Your task to perform on an android device: visit the assistant section in the google photos Image 0: 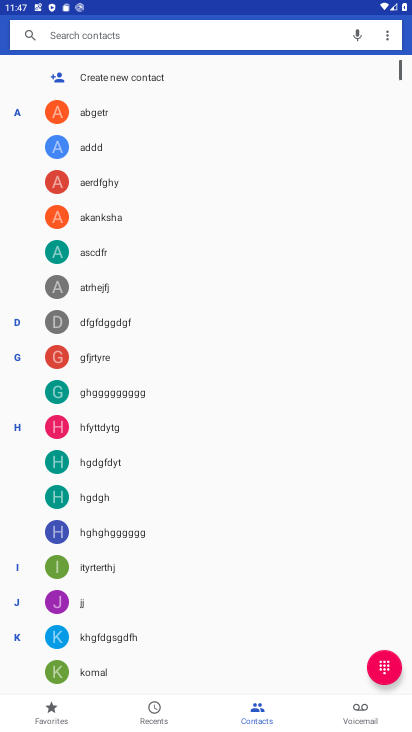
Step 0: press home button
Your task to perform on an android device: visit the assistant section in the google photos Image 1: 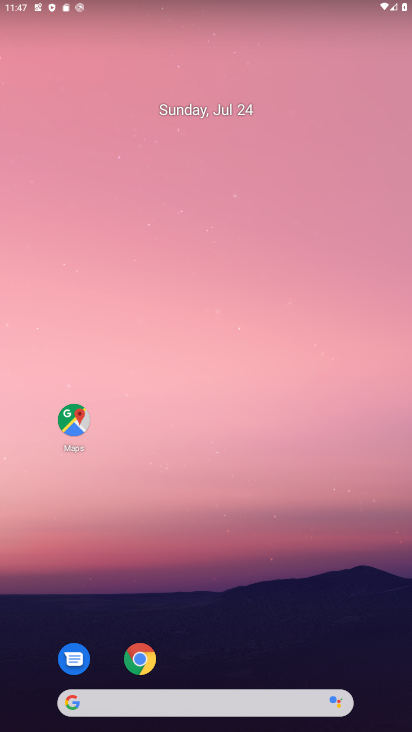
Step 1: drag from (237, 340) to (350, 104)
Your task to perform on an android device: visit the assistant section in the google photos Image 2: 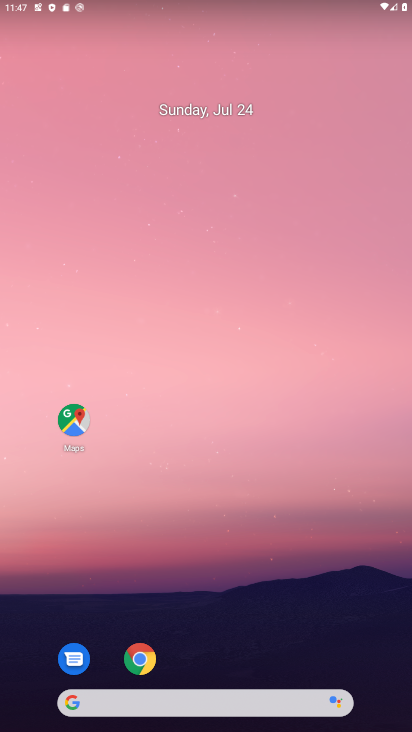
Step 2: drag from (15, 708) to (214, 151)
Your task to perform on an android device: visit the assistant section in the google photos Image 3: 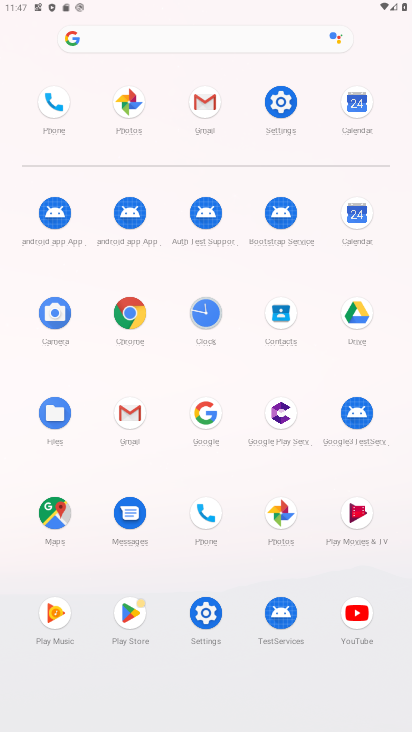
Step 3: click (305, 508)
Your task to perform on an android device: visit the assistant section in the google photos Image 4: 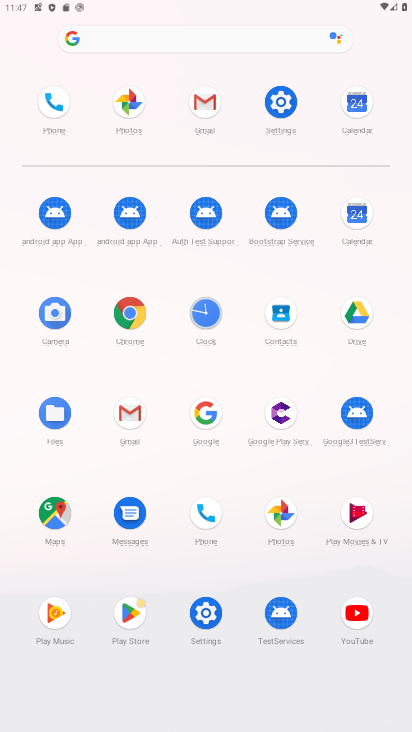
Step 4: click (276, 516)
Your task to perform on an android device: visit the assistant section in the google photos Image 5: 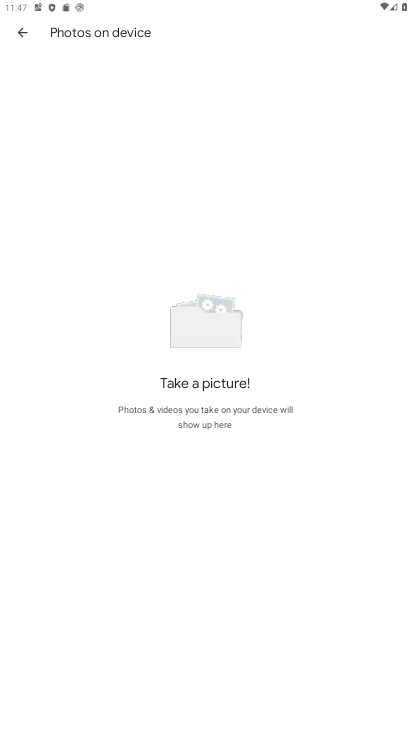
Step 5: click (18, 26)
Your task to perform on an android device: visit the assistant section in the google photos Image 6: 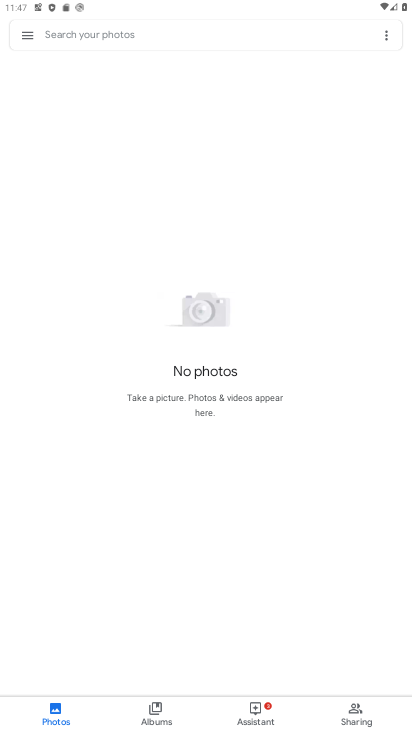
Step 6: click (263, 717)
Your task to perform on an android device: visit the assistant section in the google photos Image 7: 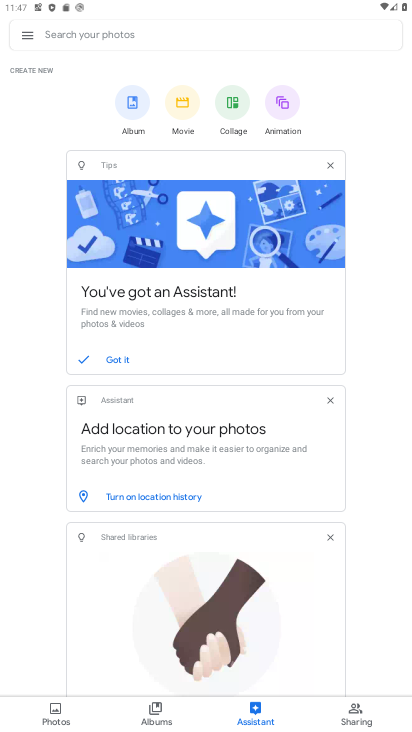
Step 7: task complete